Your task to perform on an android device: Open Google Chrome and open the bookmarks view Image 0: 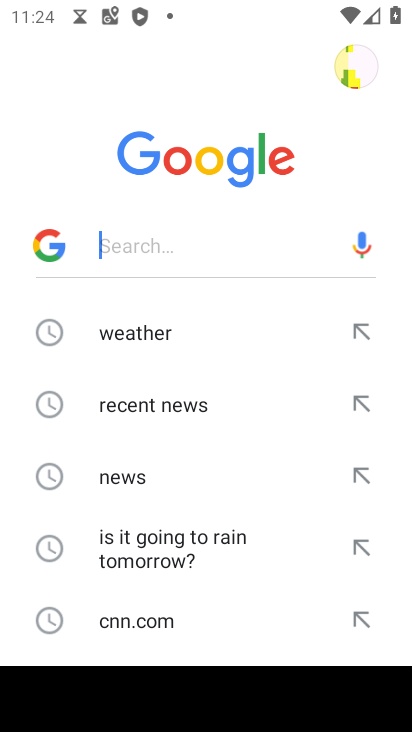
Step 0: press back button
Your task to perform on an android device: Open Google Chrome and open the bookmarks view Image 1: 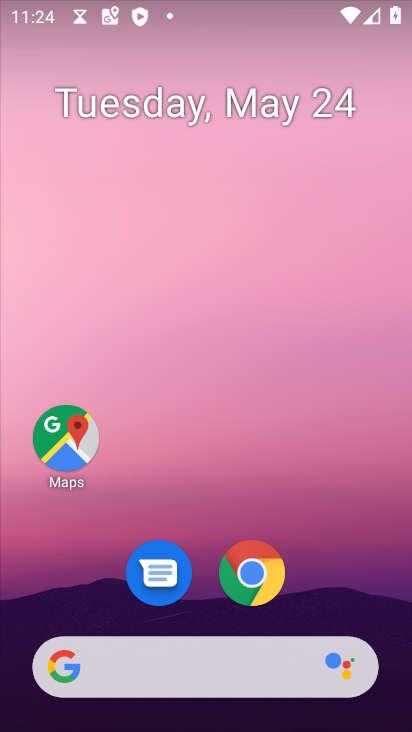
Step 1: click (231, 583)
Your task to perform on an android device: Open Google Chrome and open the bookmarks view Image 2: 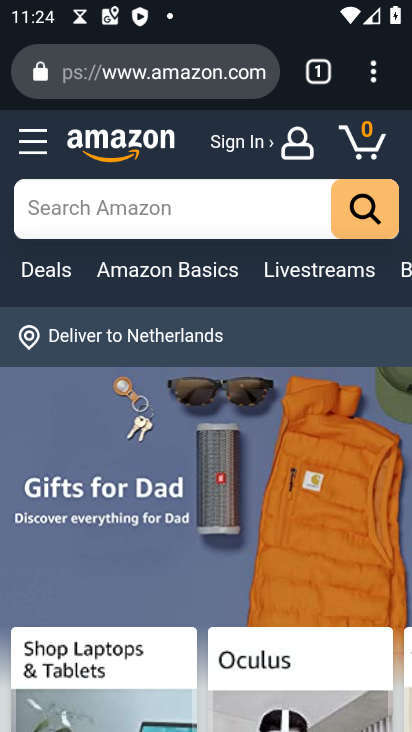
Step 2: drag from (378, 83) to (280, 262)
Your task to perform on an android device: Open Google Chrome and open the bookmarks view Image 3: 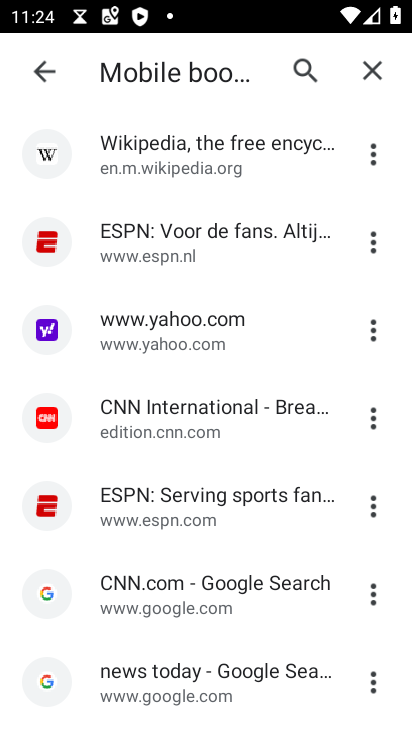
Step 3: click (191, 246)
Your task to perform on an android device: Open Google Chrome and open the bookmarks view Image 4: 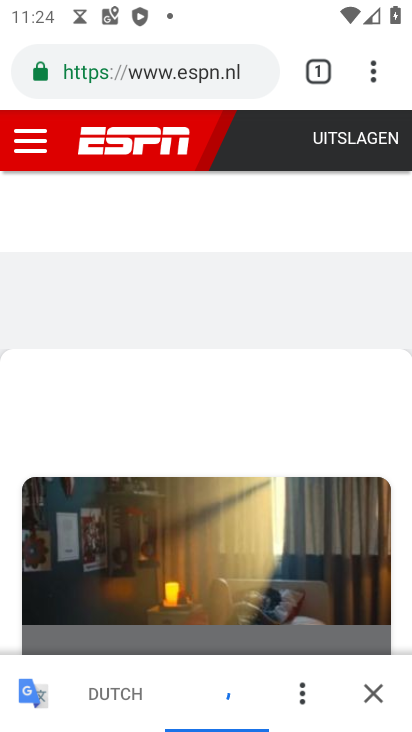
Step 4: task complete